Your task to perform on an android device: Search for pizza restaurants on Maps Image 0: 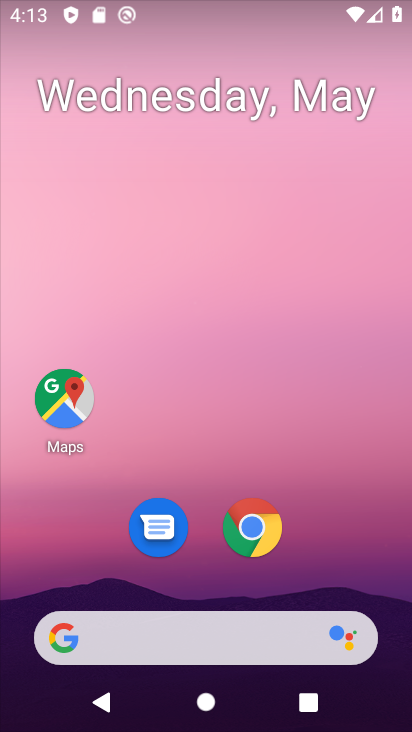
Step 0: click (32, 404)
Your task to perform on an android device: Search for pizza restaurants on Maps Image 1: 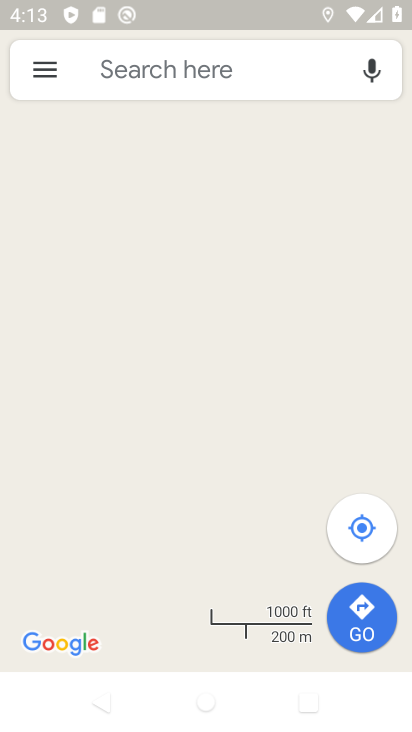
Step 1: click (213, 60)
Your task to perform on an android device: Search for pizza restaurants on Maps Image 2: 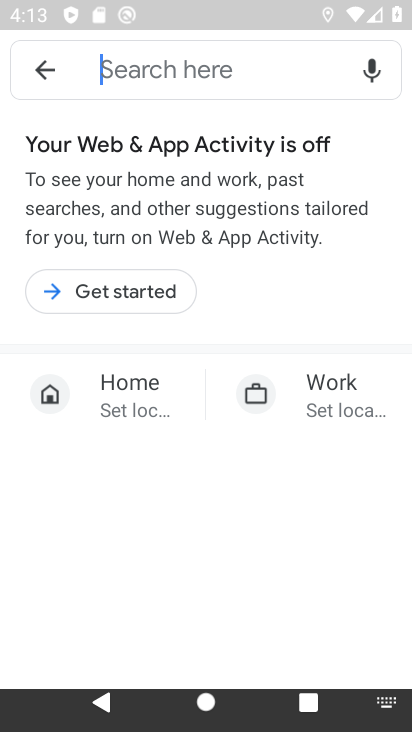
Step 2: click (227, 81)
Your task to perform on an android device: Search for pizza restaurants on Maps Image 3: 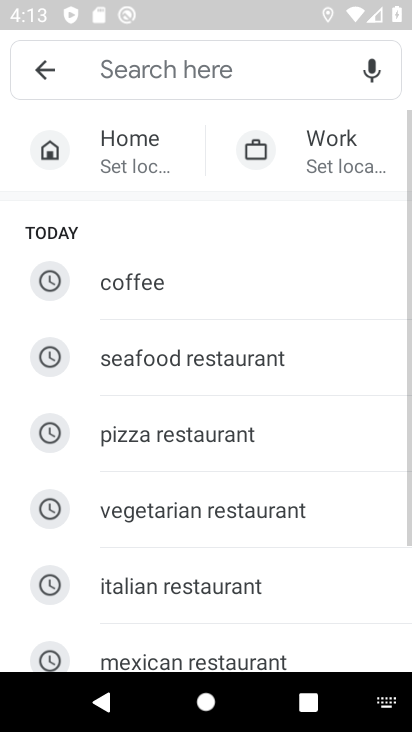
Step 3: type " pizza restaurants "
Your task to perform on an android device: Search for pizza restaurants on Maps Image 4: 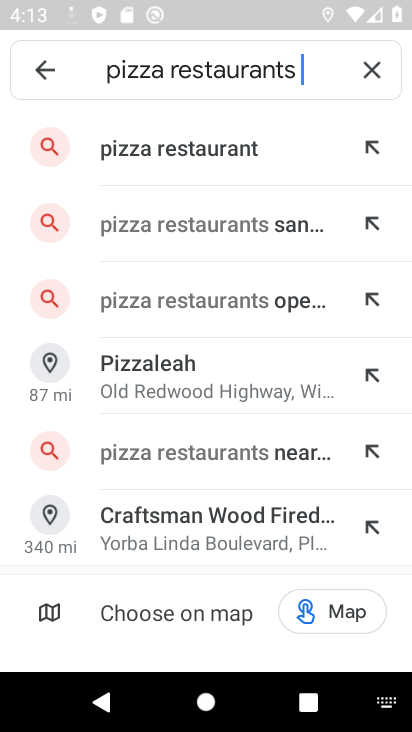
Step 4: click (180, 127)
Your task to perform on an android device: Search for pizza restaurants on Maps Image 5: 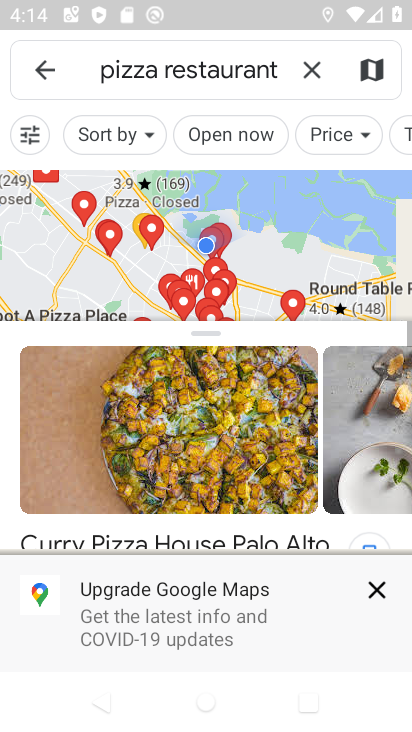
Step 5: task complete